Your task to perform on an android device: Open ESPN.com Image 0: 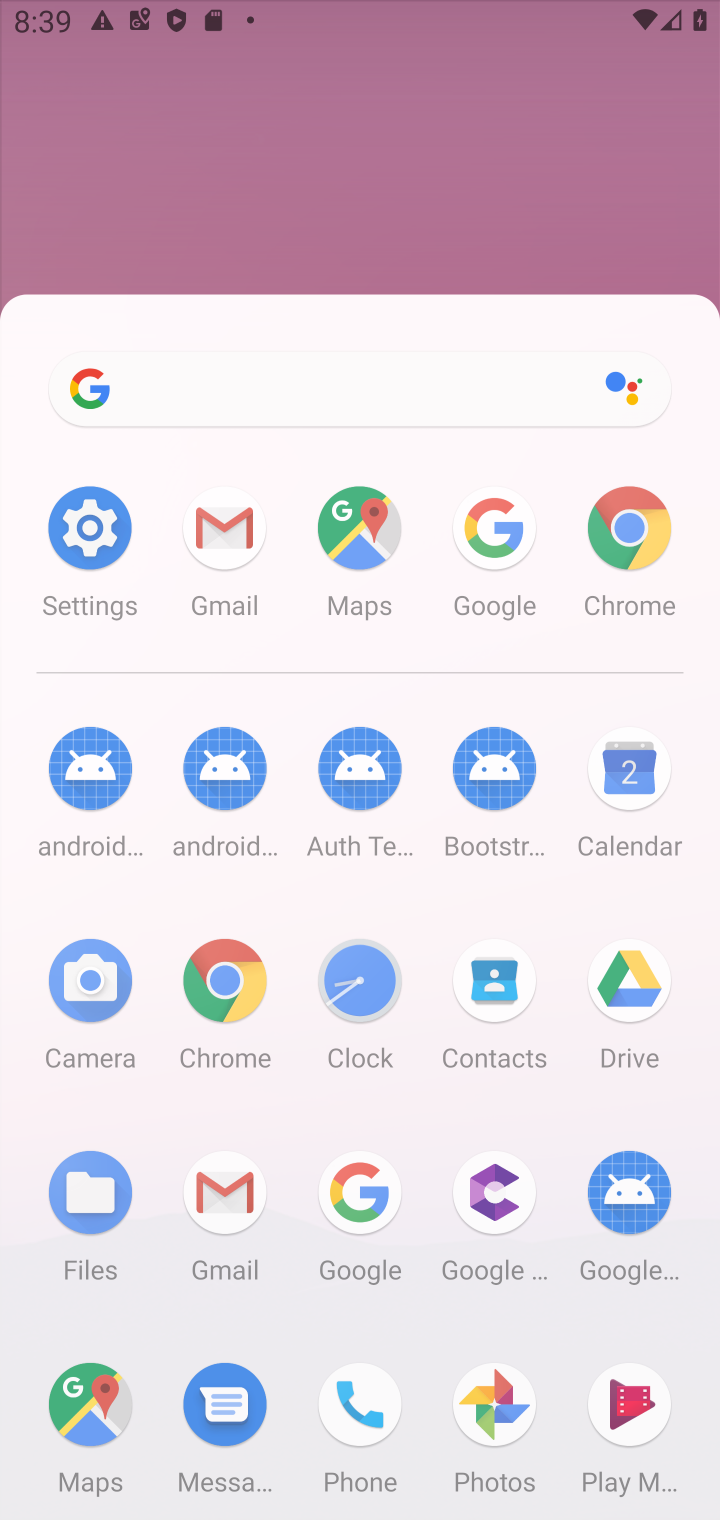
Step 0: press back button
Your task to perform on an android device: Open ESPN.com Image 1: 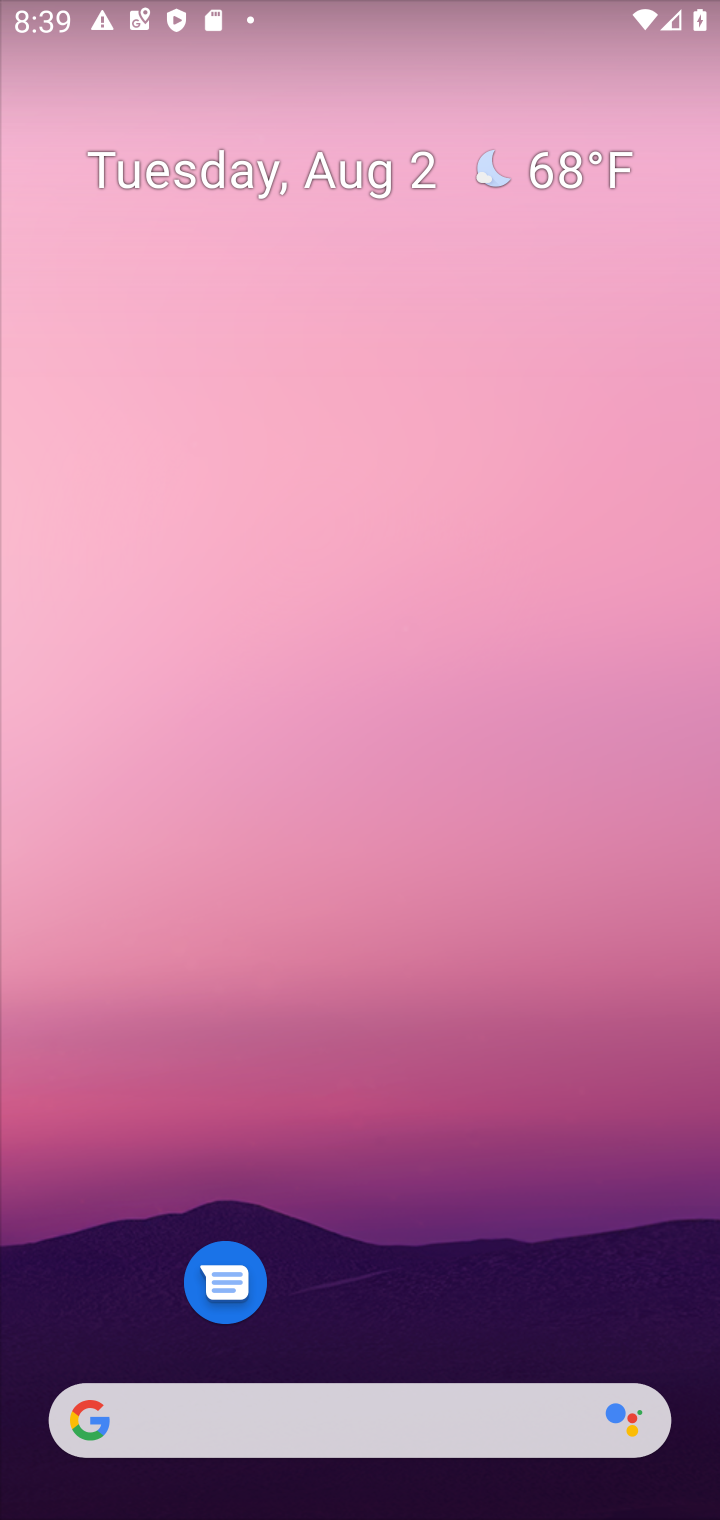
Step 1: drag from (356, 1255) to (269, 24)
Your task to perform on an android device: Open ESPN.com Image 2: 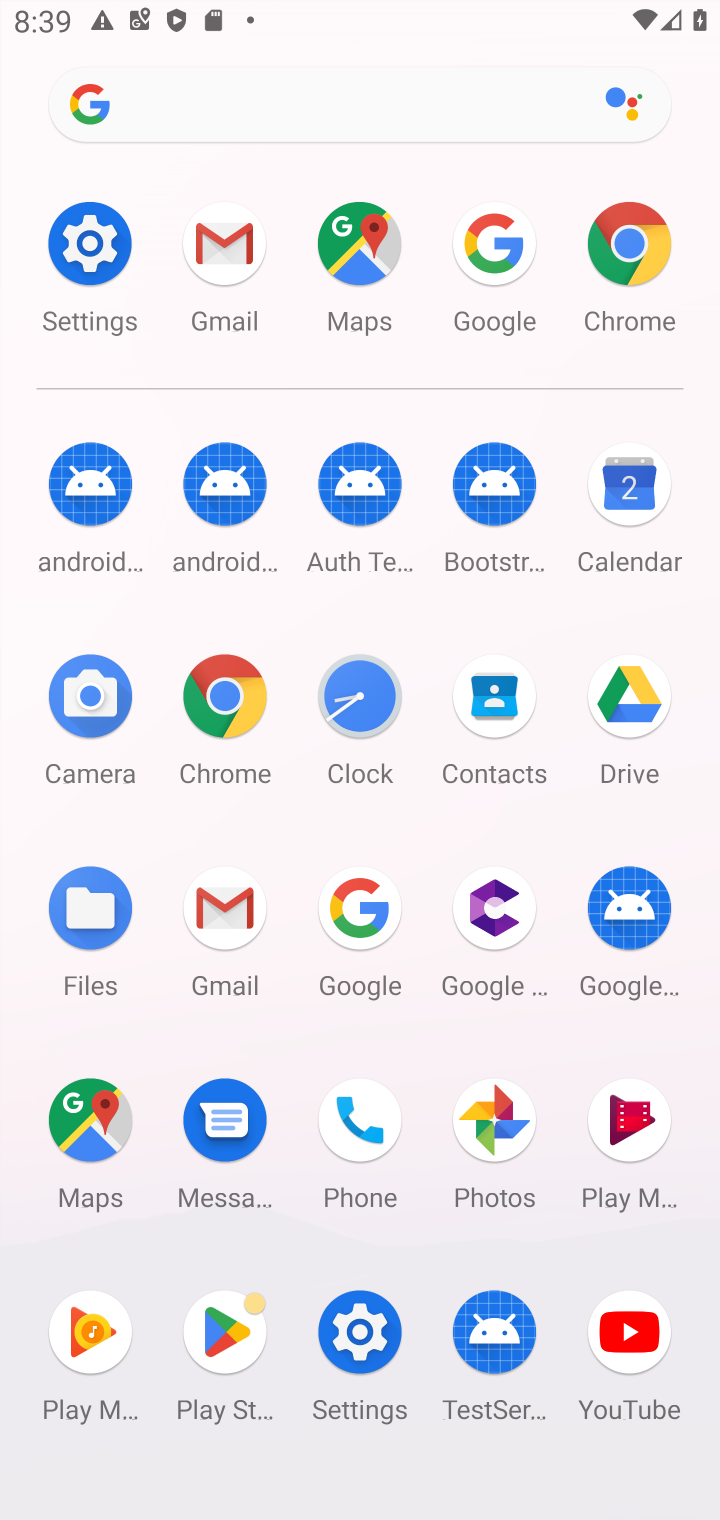
Step 2: click (253, 707)
Your task to perform on an android device: Open ESPN.com Image 3: 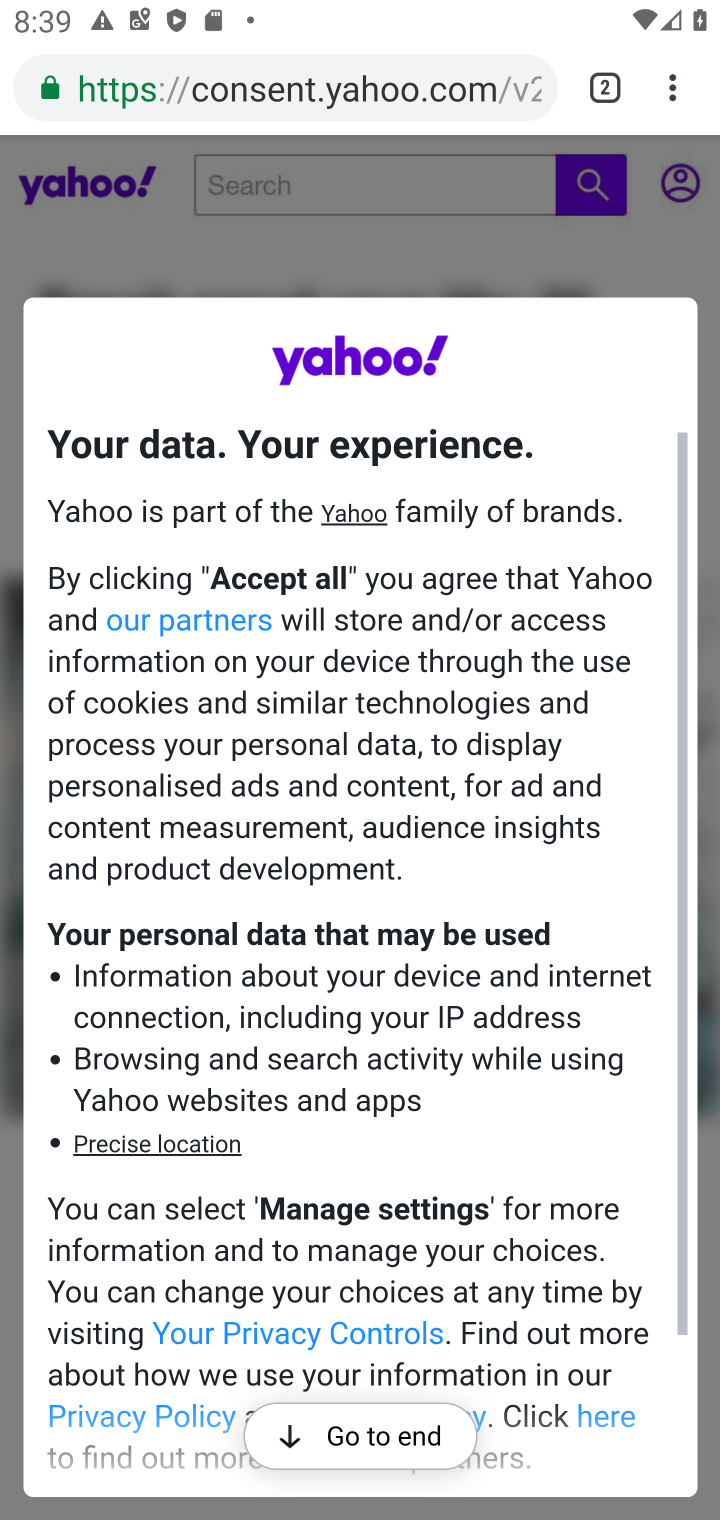
Step 3: click (606, 87)
Your task to perform on an android device: Open ESPN.com Image 4: 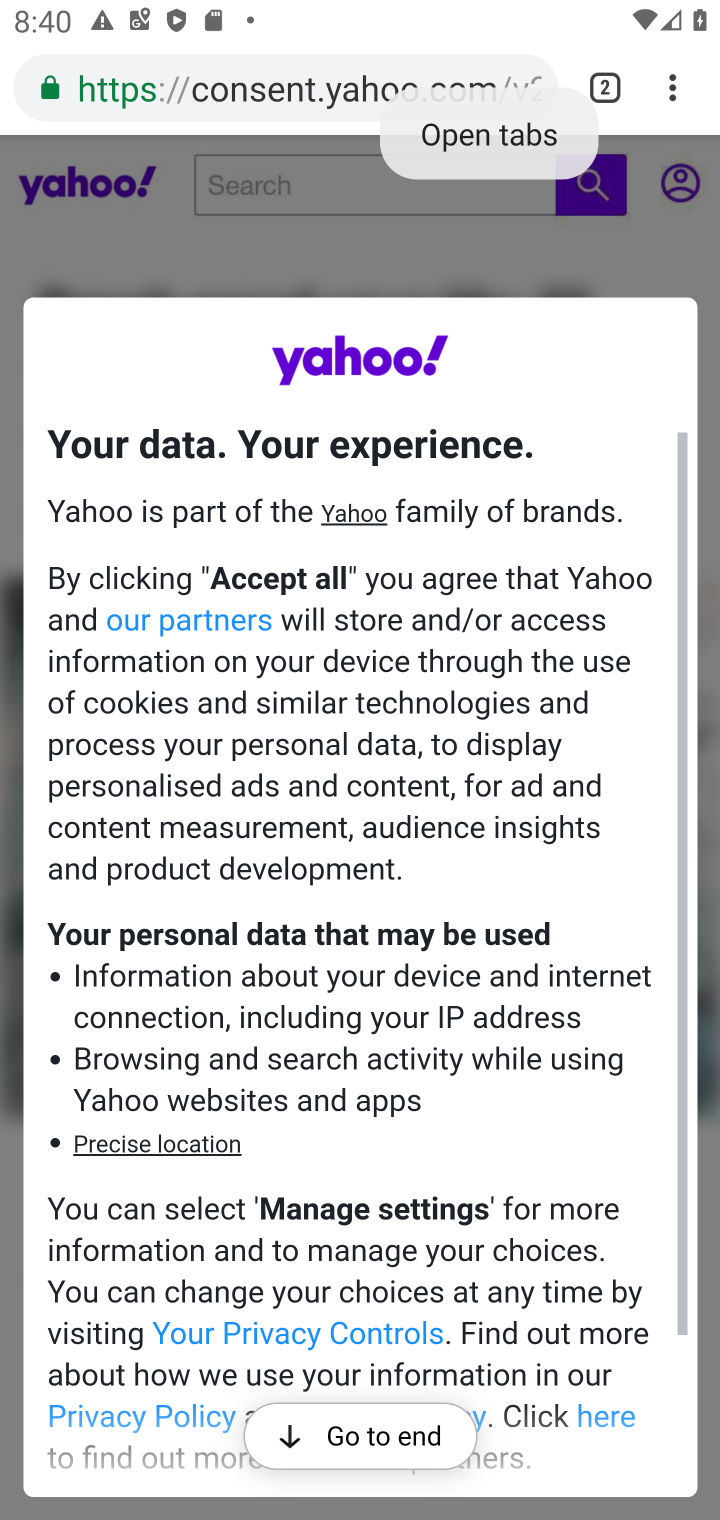
Step 4: click (606, 92)
Your task to perform on an android device: Open ESPN.com Image 5: 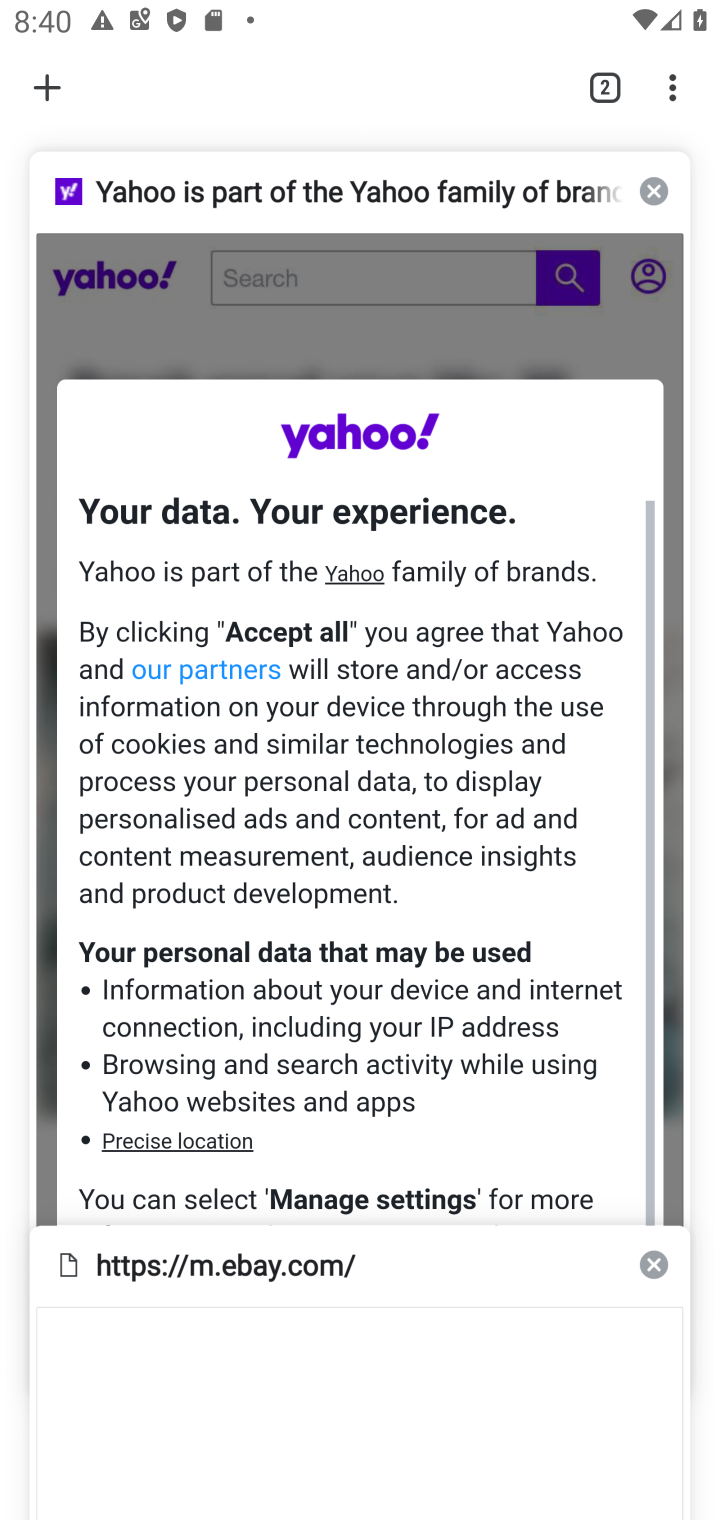
Step 5: click (58, 99)
Your task to perform on an android device: Open ESPN.com Image 6: 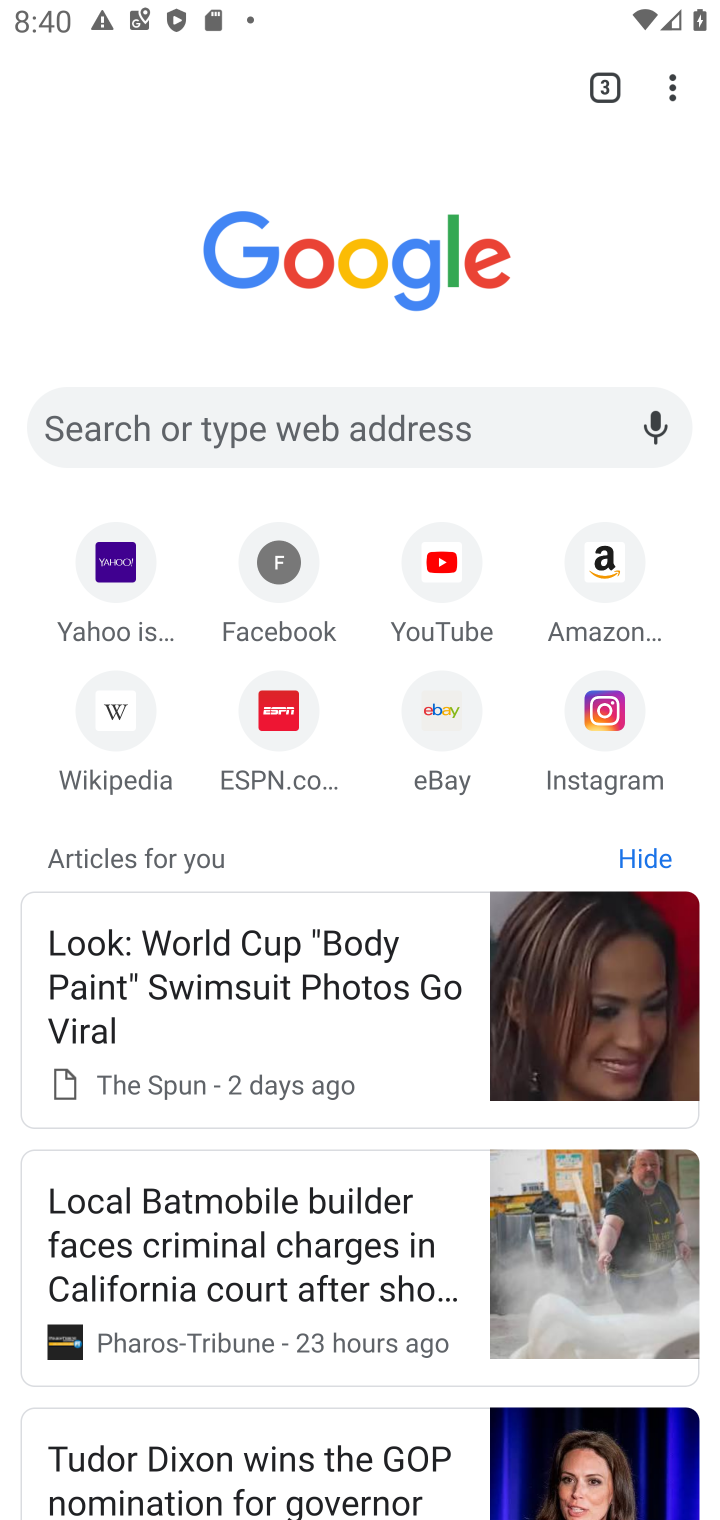
Step 6: click (248, 717)
Your task to perform on an android device: Open ESPN.com Image 7: 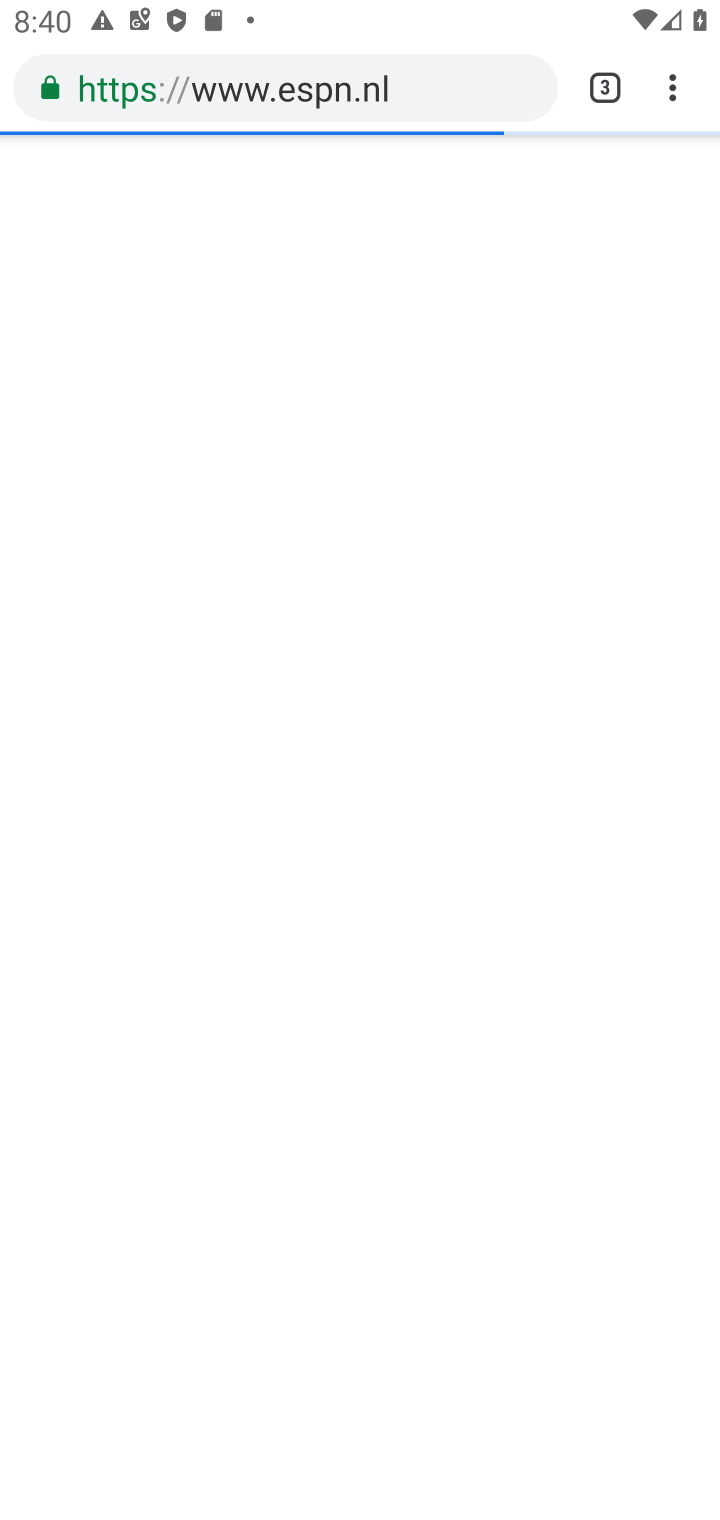
Step 7: task complete